Your task to perform on an android device: add a label to a message in the gmail app Image 0: 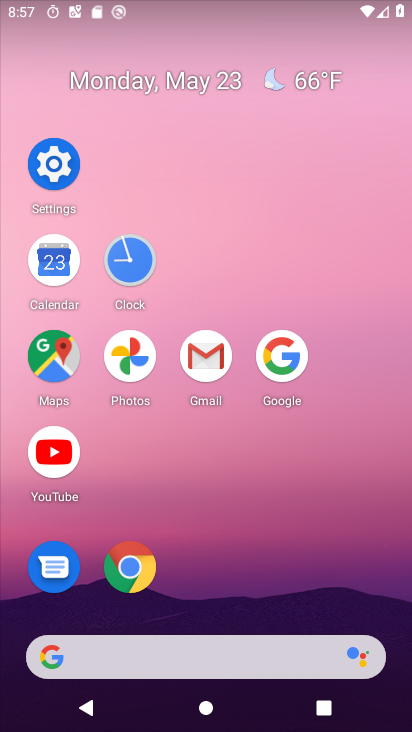
Step 0: click (206, 346)
Your task to perform on an android device: add a label to a message in the gmail app Image 1: 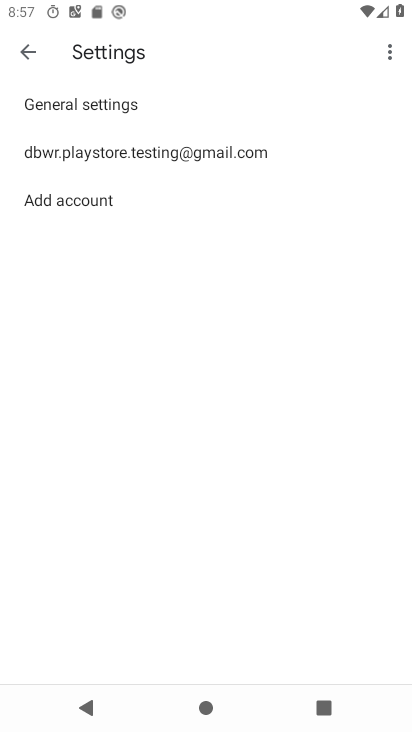
Step 1: click (16, 60)
Your task to perform on an android device: add a label to a message in the gmail app Image 2: 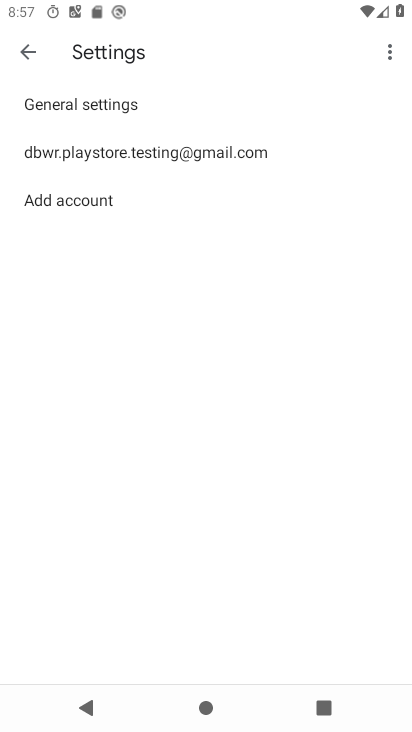
Step 2: click (39, 42)
Your task to perform on an android device: add a label to a message in the gmail app Image 3: 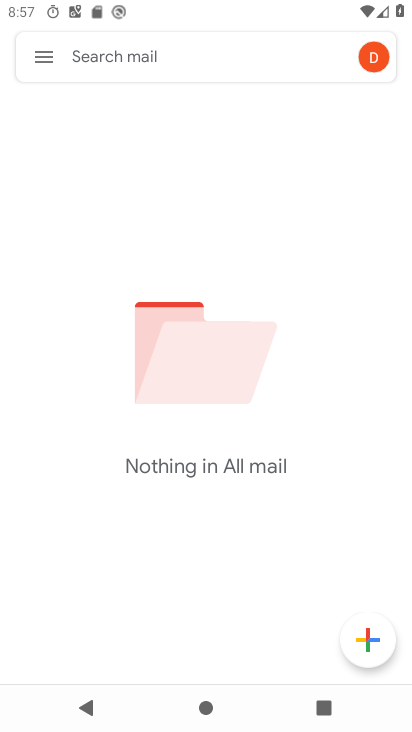
Step 3: click (42, 61)
Your task to perform on an android device: add a label to a message in the gmail app Image 4: 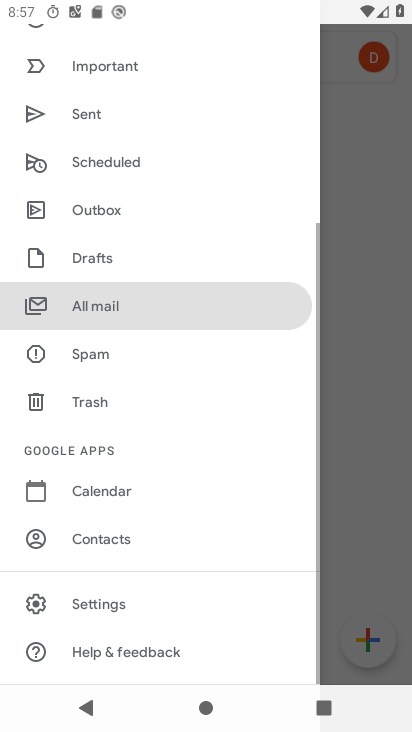
Step 4: click (165, 312)
Your task to perform on an android device: add a label to a message in the gmail app Image 5: 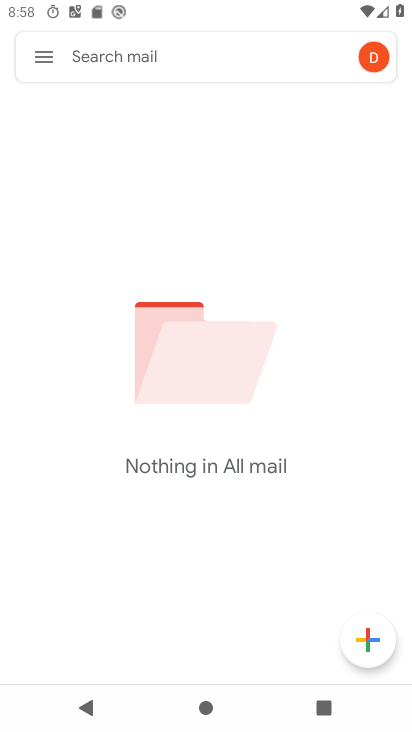
Step 5: task complete